Your task to perform on an android device: Open Amazon Image 0: 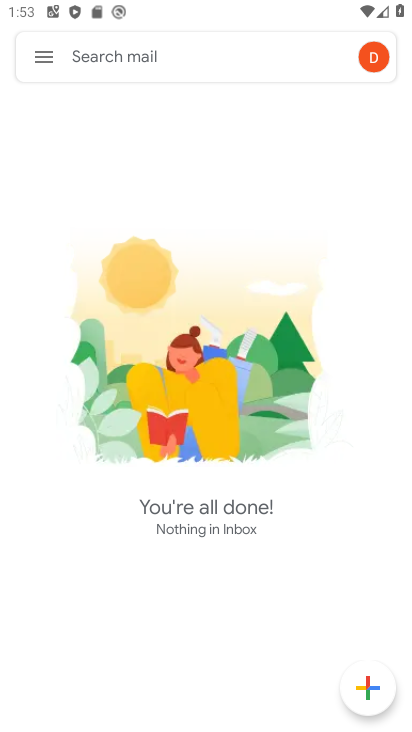
Step 0: press home button
Your task to perform on an android device: Open Amazon Image 1: 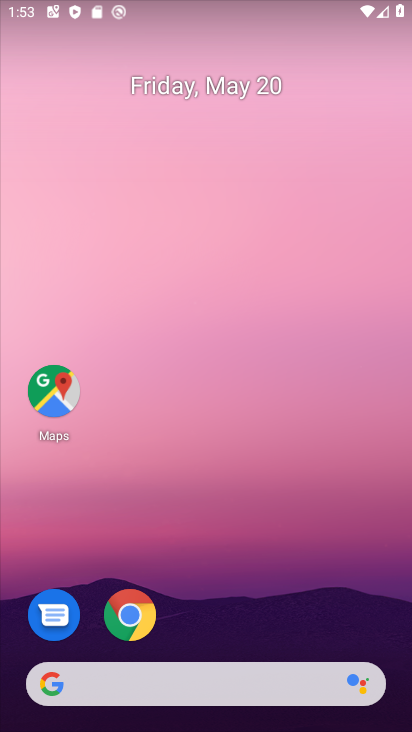
Step 1: drag from (236, 596) to (275, 303)
Your task to perform on an android device: Open Amazon Image 2: 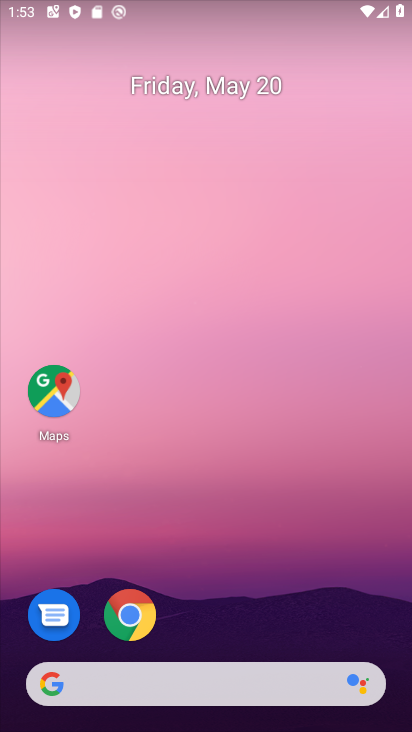
Step 2: drag from (233, 559) to (264, 250)
Your task to perform on an android device: Open Amazon Image 3: 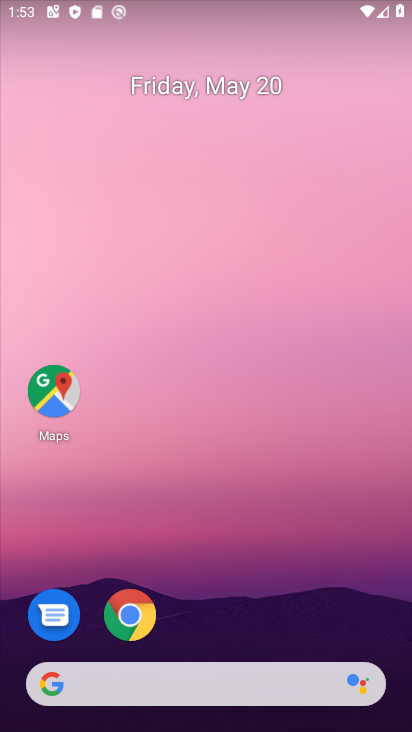
Step 3: drag from (274, 605) to (264, 244)
Your task to perform on an android device: Open Amazon Image 4: 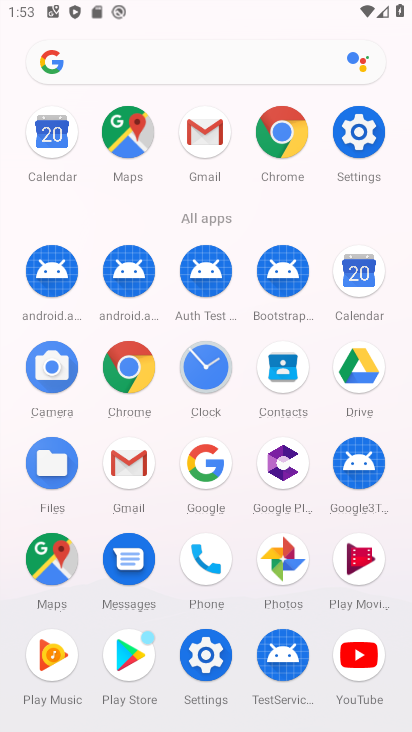
Step 4: click (350, 132)
Your task to perform on an android device: Open Amazon Image 5: 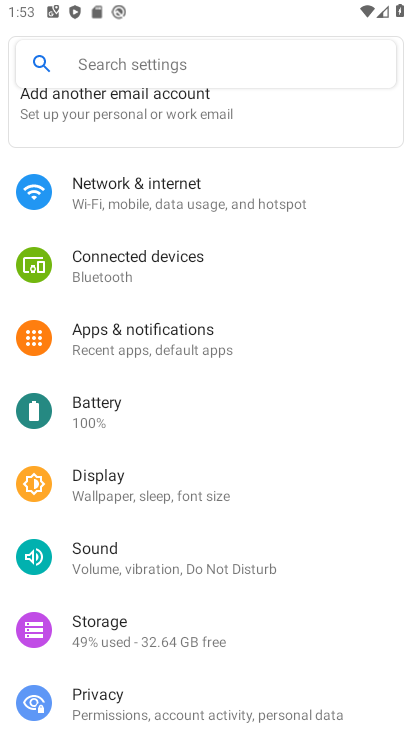
Step 5: press home button
Your task to perform on an android device: Open Amazon Image 6: 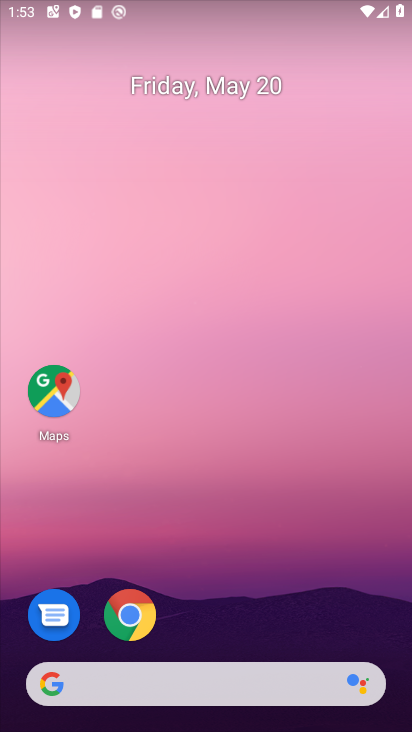
Step 6: click (119, 621)
Your task to perform on an android device: Open Amazon Image 7: 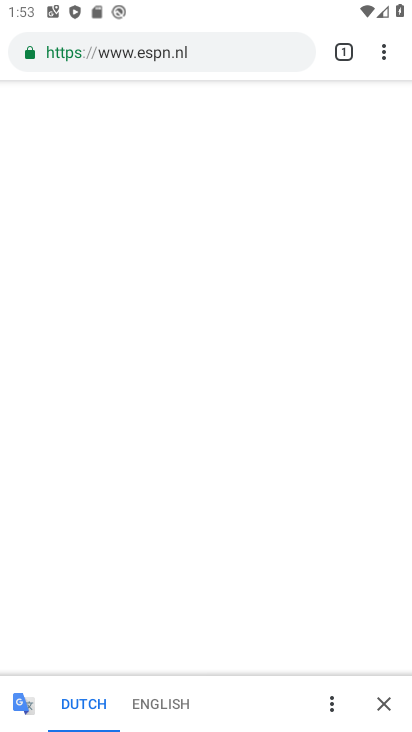
Step 7: click (376, 43)
Your task to perform on an android device: Open Amazon Image 8: 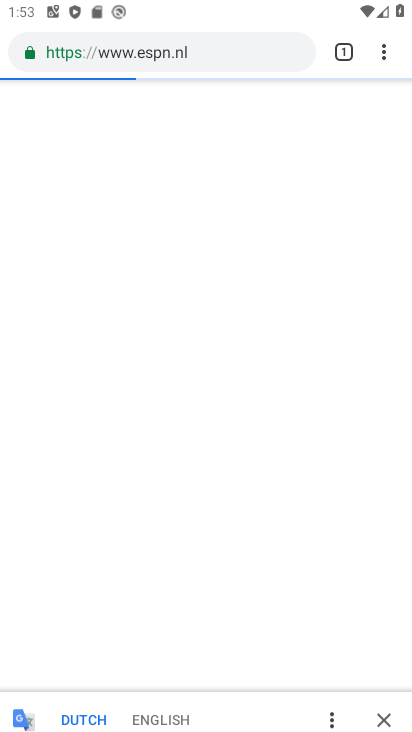
Step 8: click (382, 55)
Your task to perform on an android device: Open Amazon Image 9: 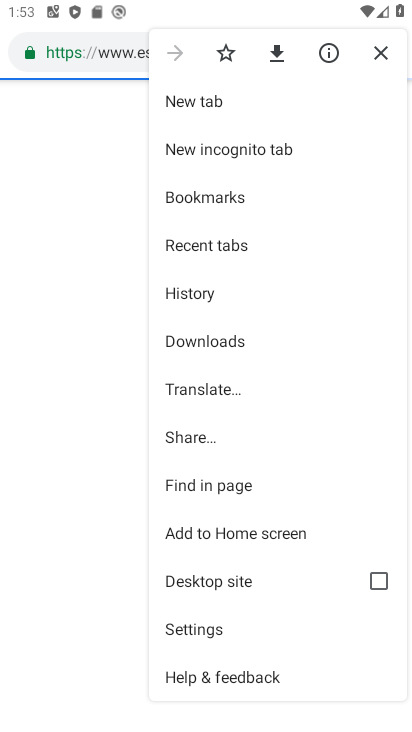
Step 9: click (216, 105)
Your task to perform on an android device: Open Amazon Image 10: 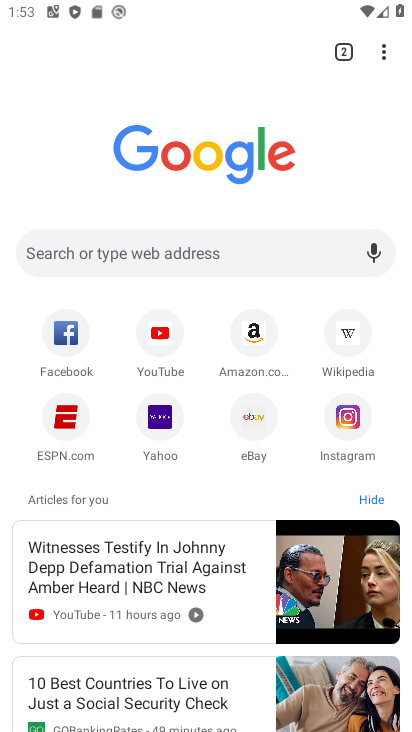
Step 10: click (253, 324)
Your task to perform on an android device: Open Amazon Image 11: 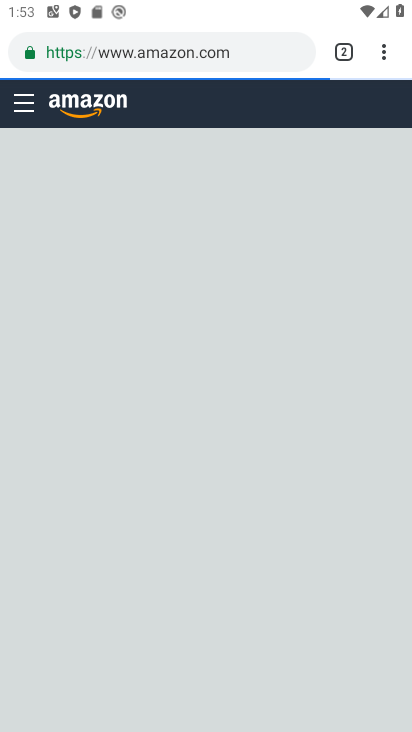
Step 11: task complete